Your task to perform on an android device: uninstall "Pinterest" Image 0: 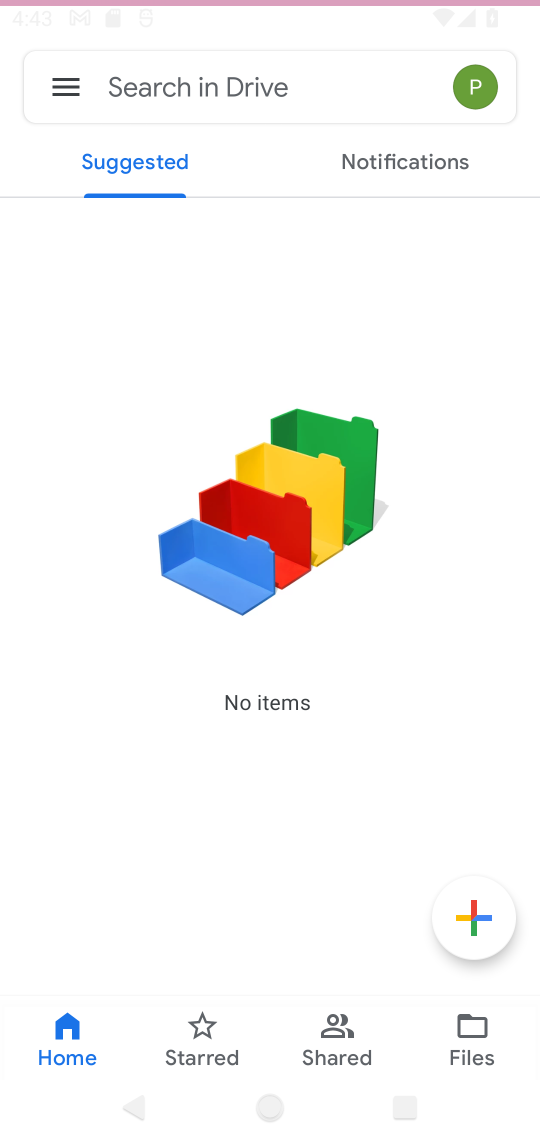
Step 0: press home button
Your task to perform on an android device: uninstall "Pinterest" Image 1: 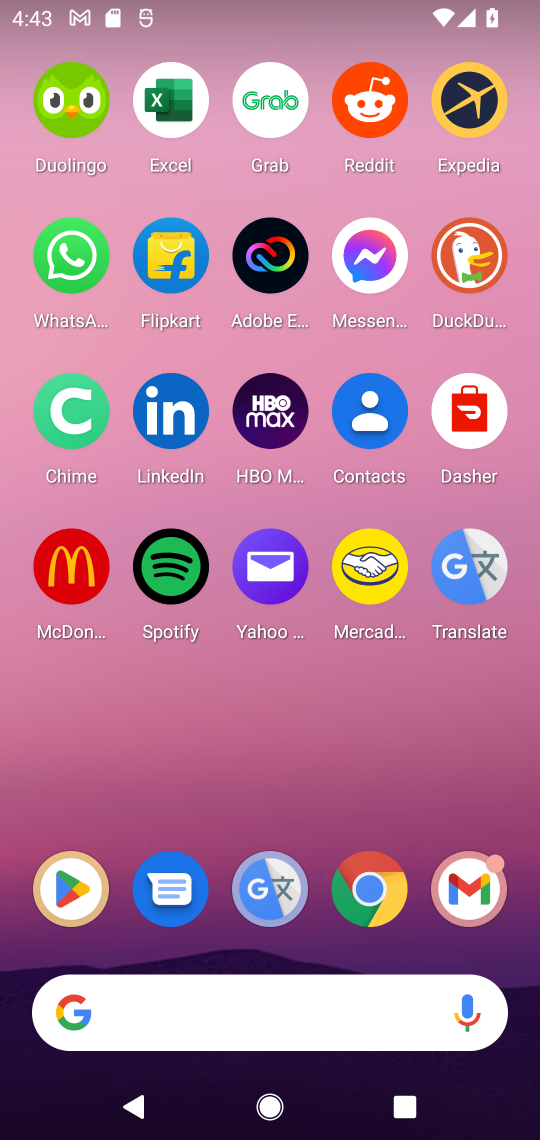
Step 1: drag from (421, 730) to (427, 44)
Your task to perform on an android device: uninstall "Pinterest" Image 2: 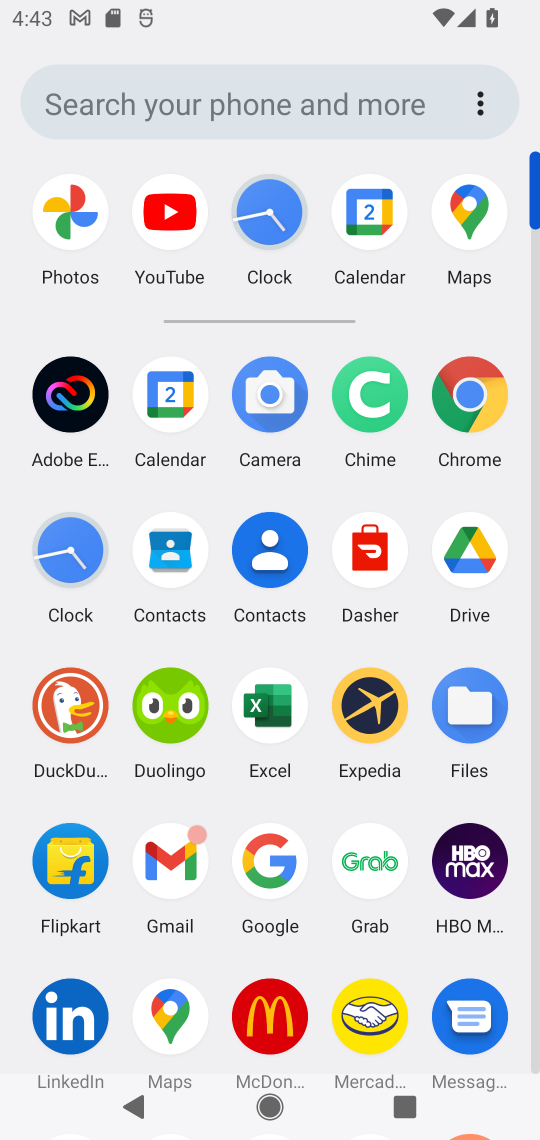
Step 2: drag from (511, 951) to (532, 538)
Your task to perform on an android device: uninstall "Pinterest" Image 3: 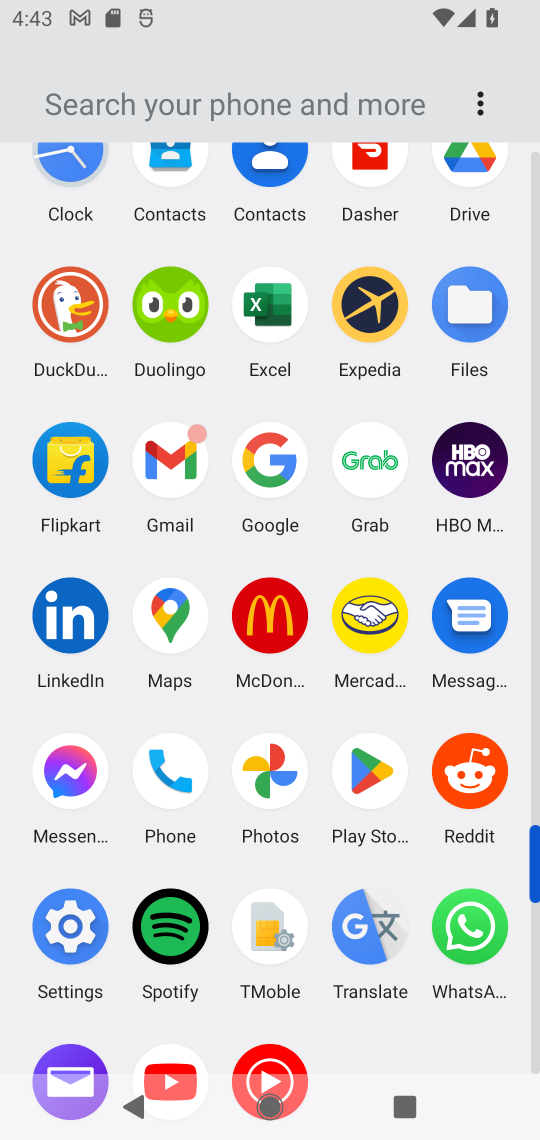
Step 3: click (369, 668)
Your task to perform on an android device: uninstall "Pinterest" Image 4: 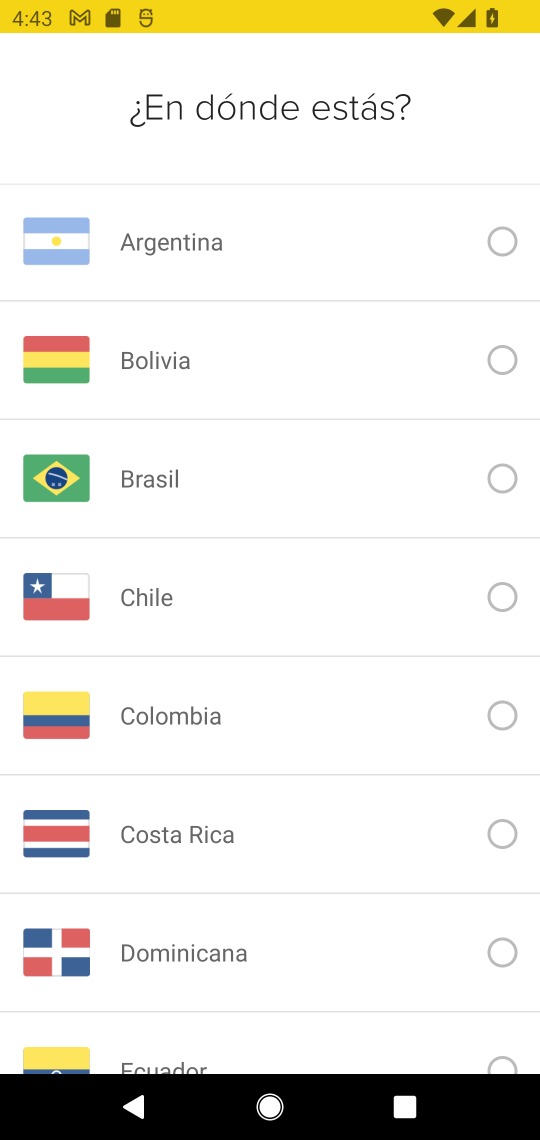
Step 4: press back button
Your task to perform on an android device: uninstall "Pinterest" Image 5: 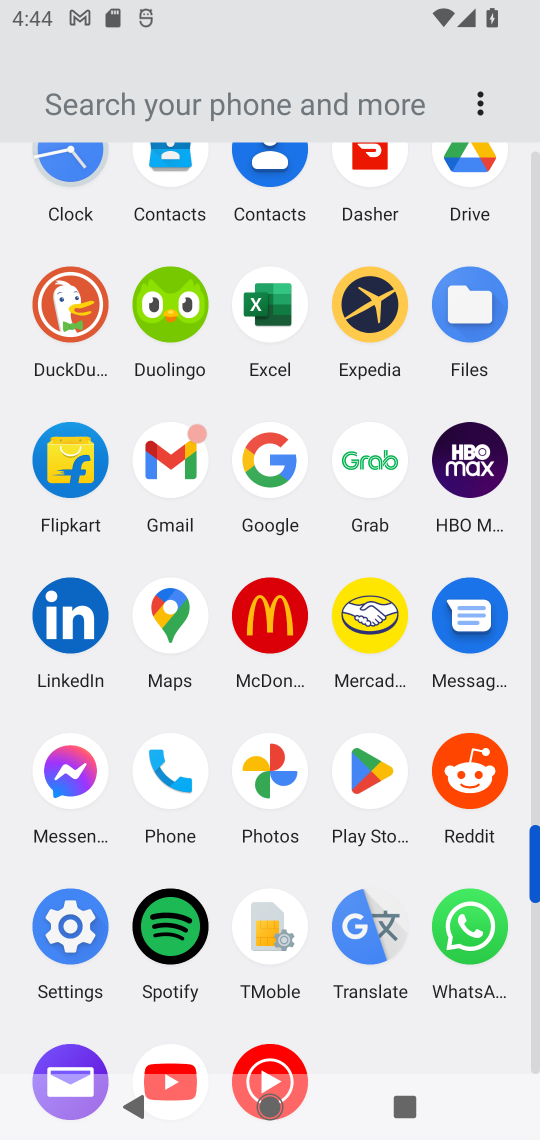
Step 5: click (365, 800)
Your task to perform on an android device: uninstall "Pinterest" Image 6: 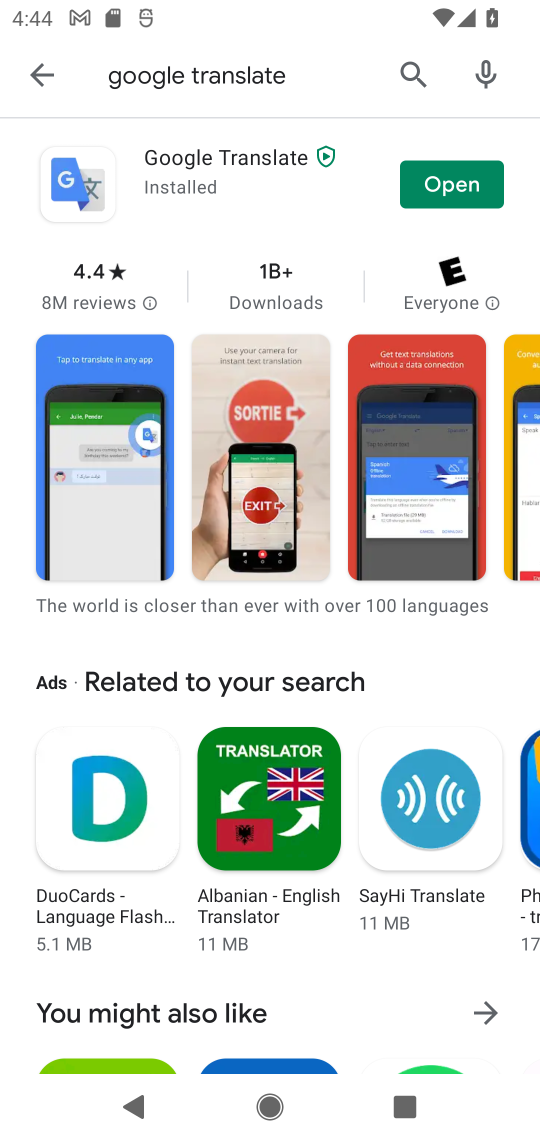
Step 6: click (407, 73)
Your task to perform on an android device: uninstall "Pinterest" Image 7: 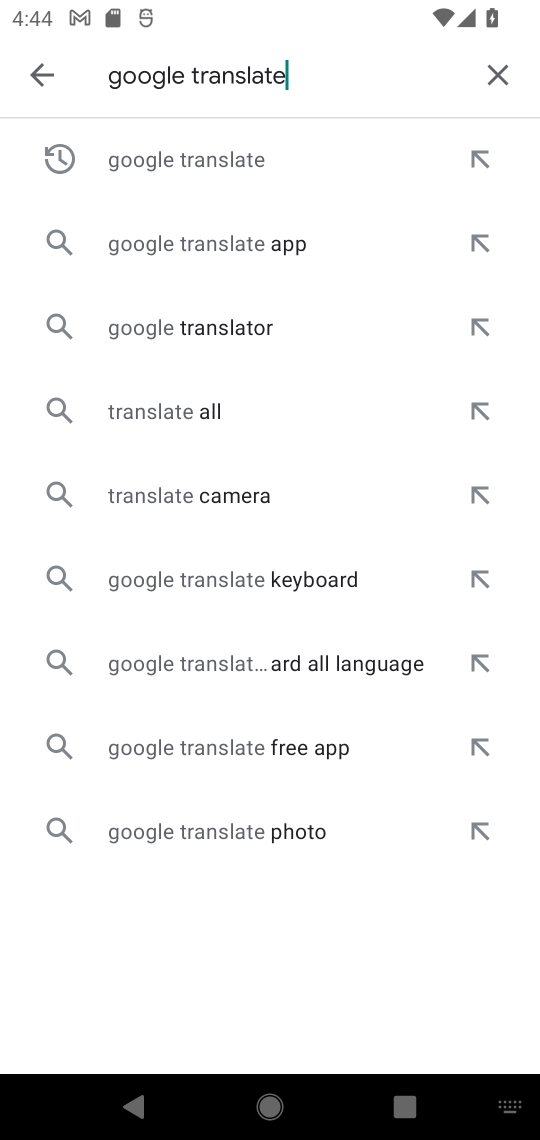
Step 7: click (510, 85)
Your task to perform on an android device: uninstall "Pinterest" Image 8: 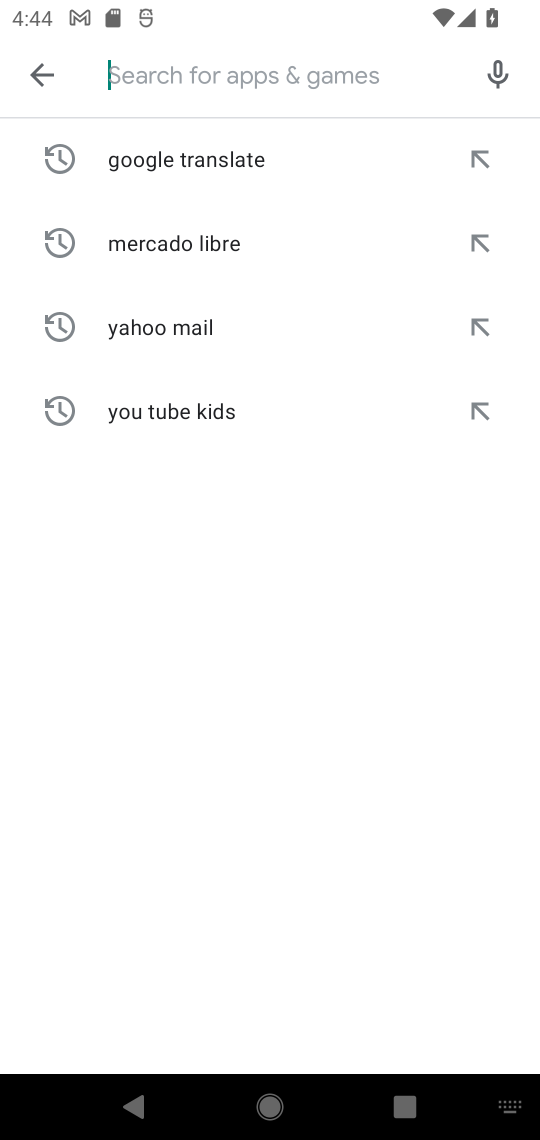
Step 8: type "pinterest"
Your task to perform on an android device: uninstall "Pinterest" Image 9: 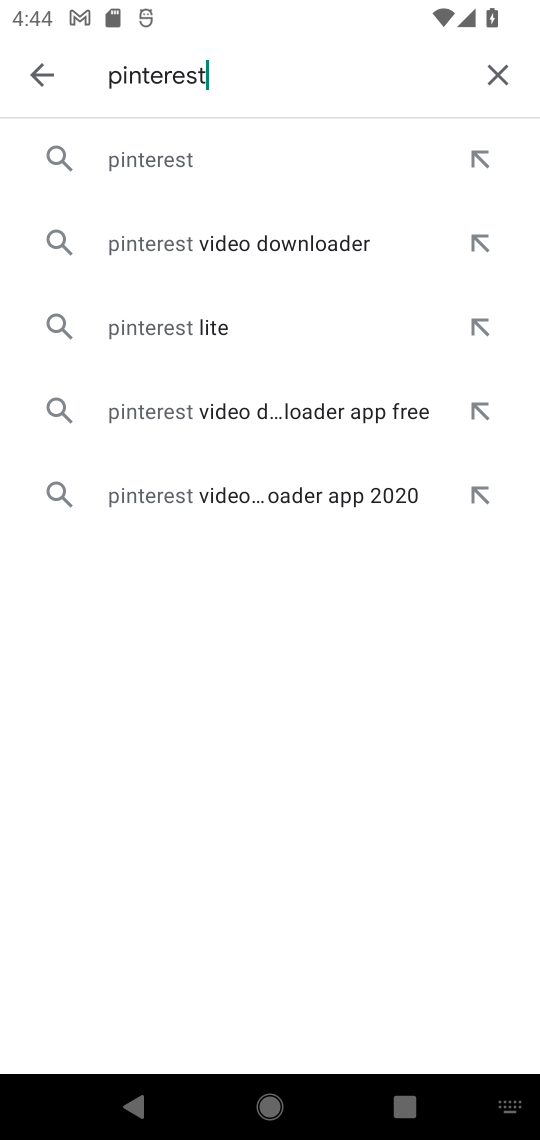
Step 9: click (247, 168)
Your task to perform on an android device: uninstall "Pinterest" Image 10: 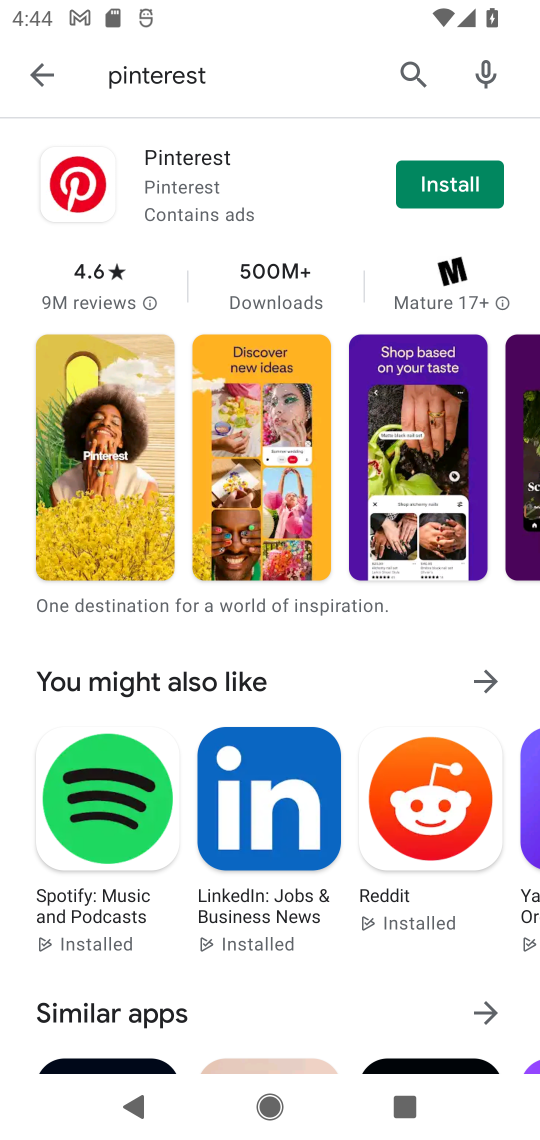
Step 10: task complete